Your task to perform on an android device: Go to CNN.com Image 0: 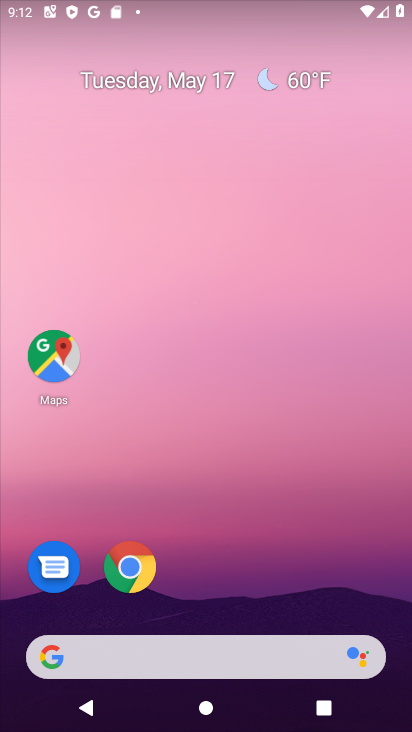
Step 0: drag from (363, 604) to (281, 41)
Your task to perform on an android device: Go to CNN.com Image 1: 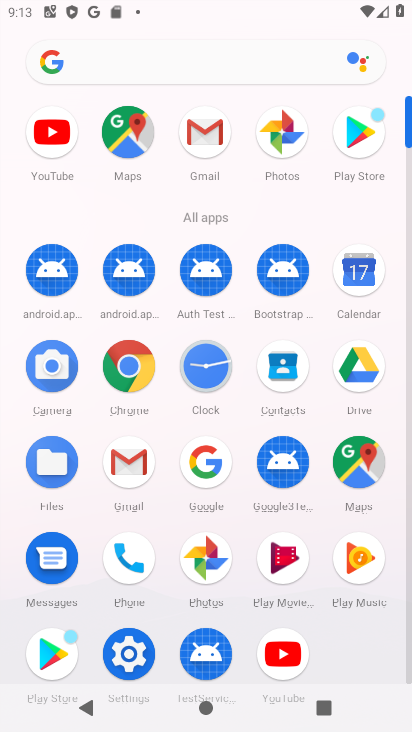
Step 1: click (197, 460)
Your task to perform on an android device: Go to CNN.com Image 2: 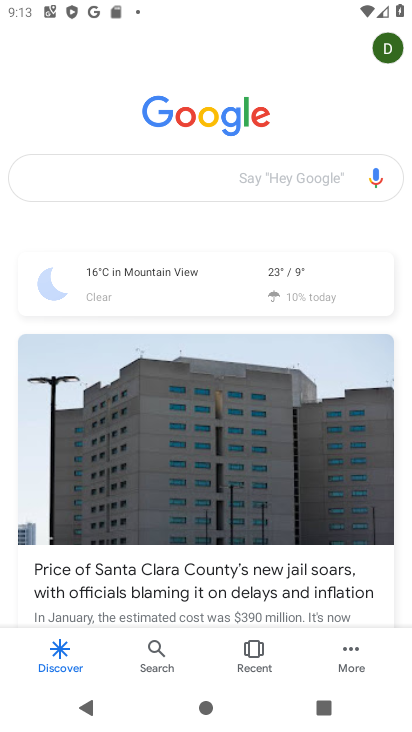
Step 2: click (143, 182)
Your task to perform on an android device: Go to CNN.com Image 3: 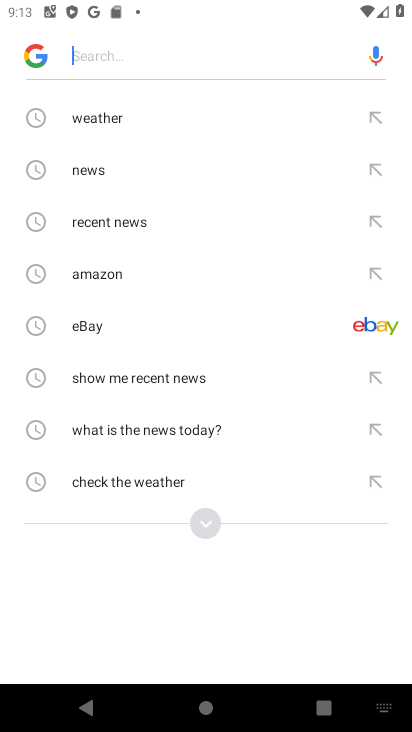
Step 3: click (202, 525)
Your task to perform on an android device: Go to CNN.com Image 4: 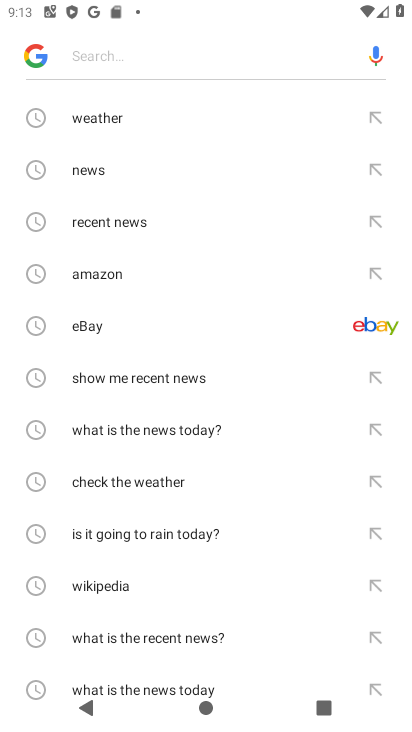
Step 4: drag from (85, 705) to (160, 155)
Your task to perform on an android device: Go to CNN.com Image 5: 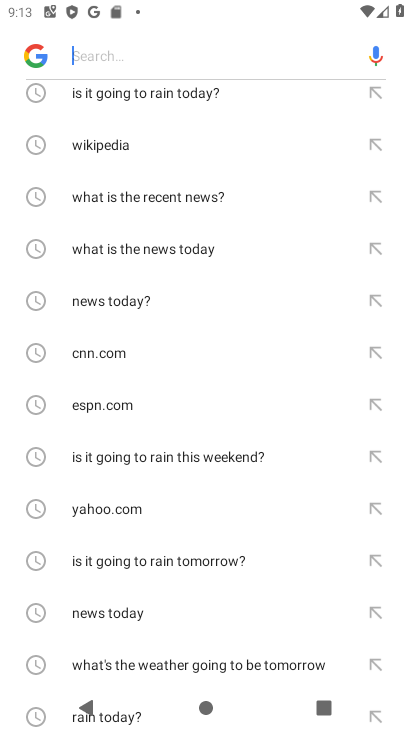
Step 5: click (119, 348)
Your task to perform on an android device: Go to CNN.com Image 6: 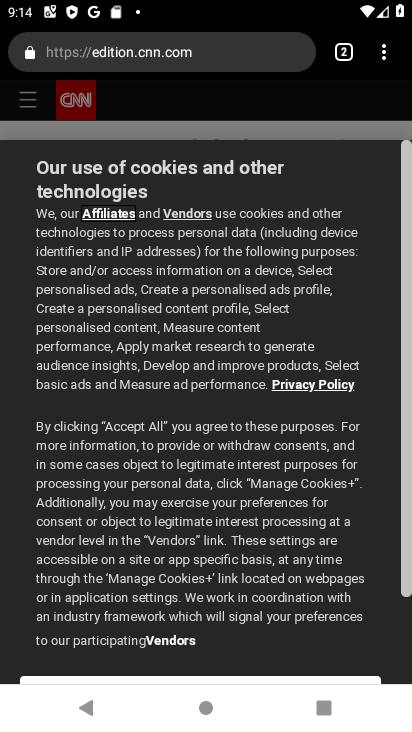
Step 6: task complete